Your task to perform on an android device: change text size in settings app Image 0: 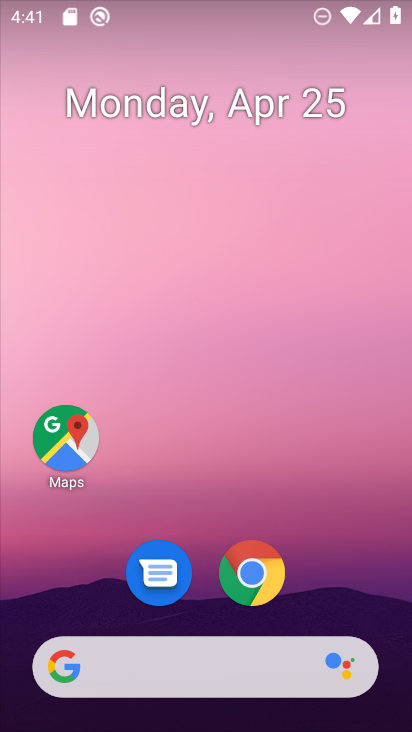
Step 0: drag from (353, 620) to (381, 8)
Your task to perform on an android device: change text size in settings app Image 1: 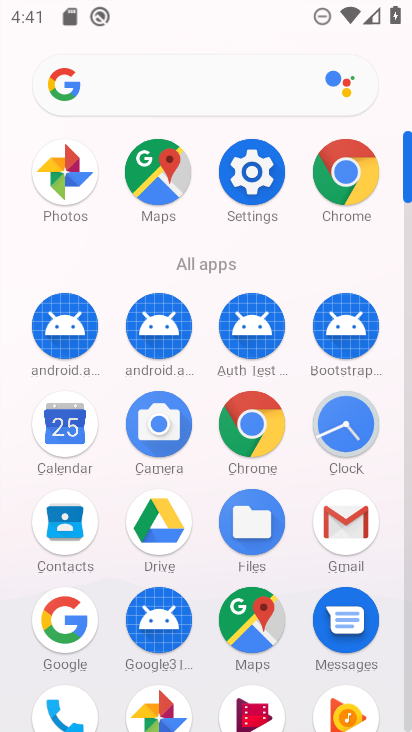
Step 1: click (242, 172)
Your task to perform on an android device: change text size in settings app Image 2: 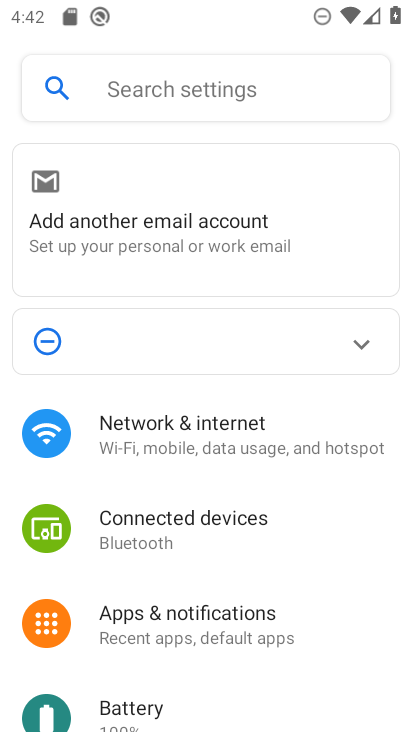
Step 2: drag from (349, 649) to (338, 285)
Your task to perform on an android device: change text size in settings app Image 3: 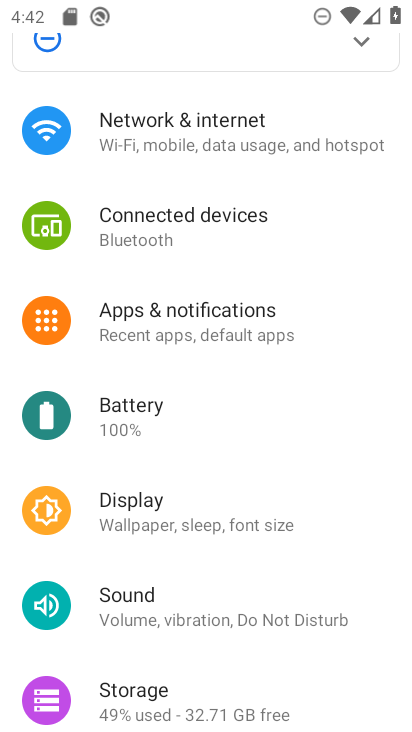
Step 3: click (132, 518)
Your task to perform on an android device: change text size in settings app Image 4: 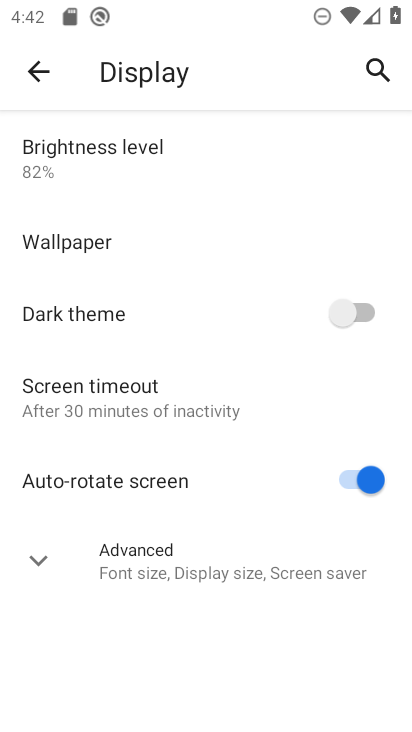
Step 4: click (34, 572)
Your task to perform on an android device: change text size in settings app Image 5: 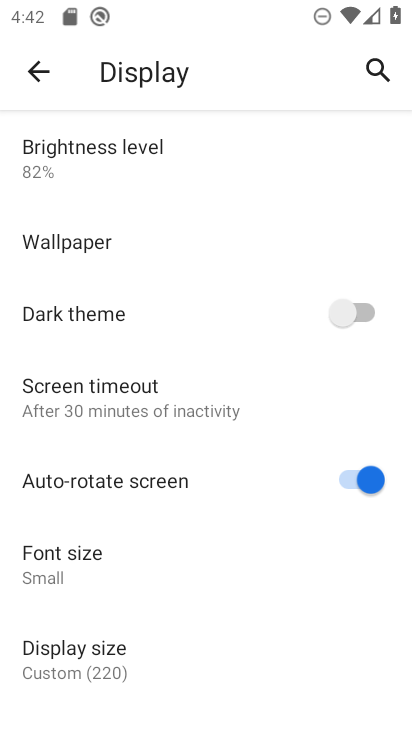
Step 5: click (37, 573)
Your task to perform on an android device: change text size in settings app Image 6: 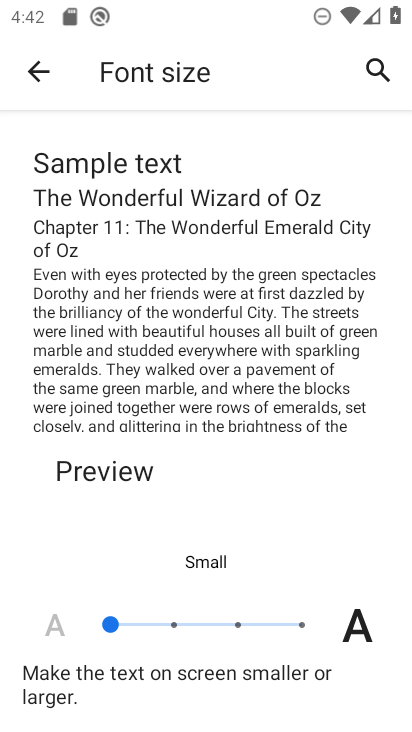
Step 6: click (171, 626)
Your task to perform on an android device: change text size in settings app Image 7: 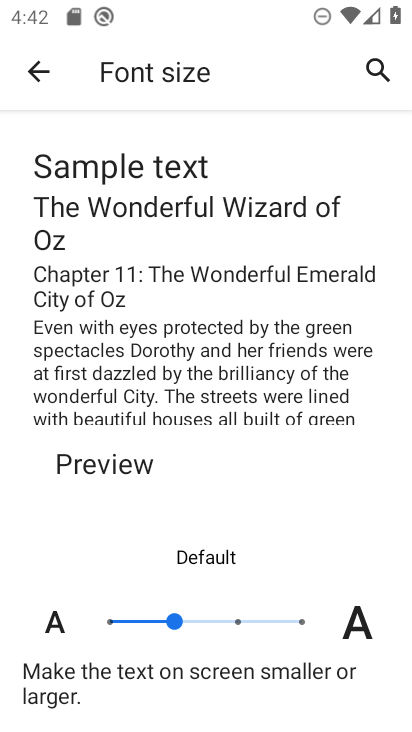
Step 7: task complete